Your task to perform on an android device: Open network settings Image 0: 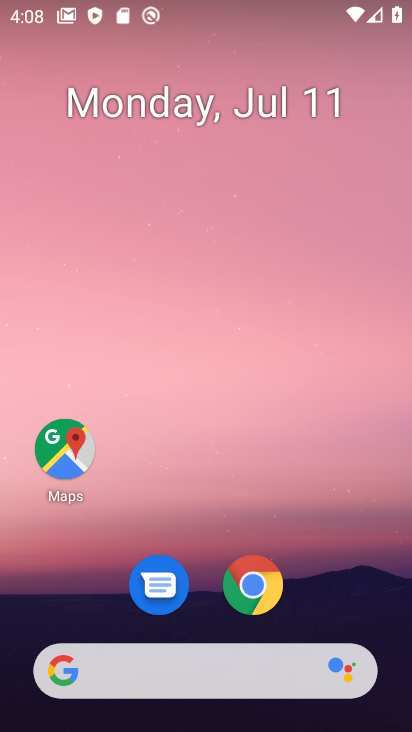
Step 0: drag from (211, 493) to (191, 0)
Your task to perform on an android device: Open network settings Image 1: 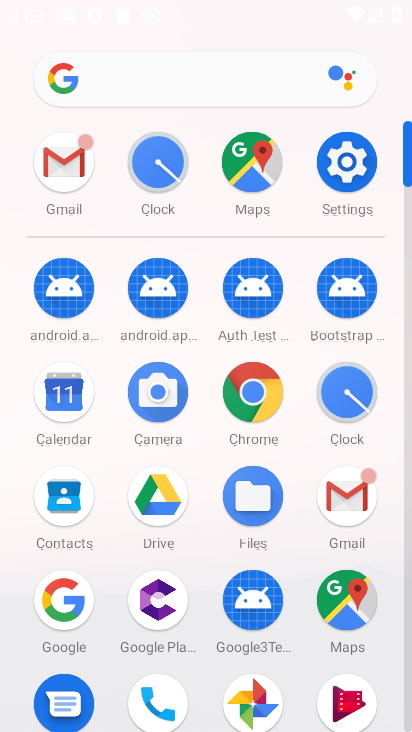
Step 1: click (350, 170)
Your task to perform on an android device: Open network settings Image 2: 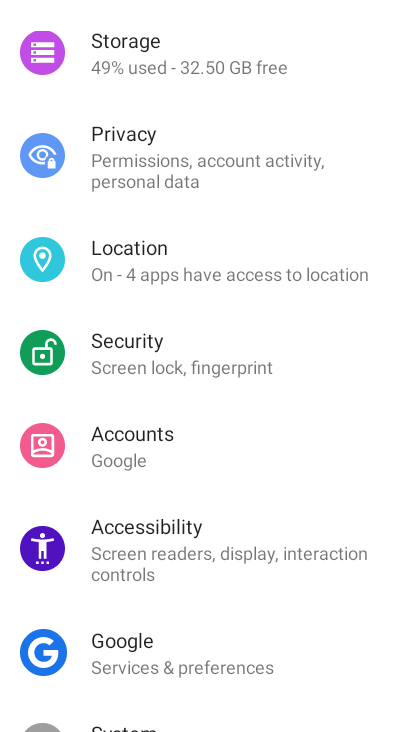
Step 2: drag from (203, 223) to (211, 564)
Your task to perform on an android device: Open network settings Image 3: 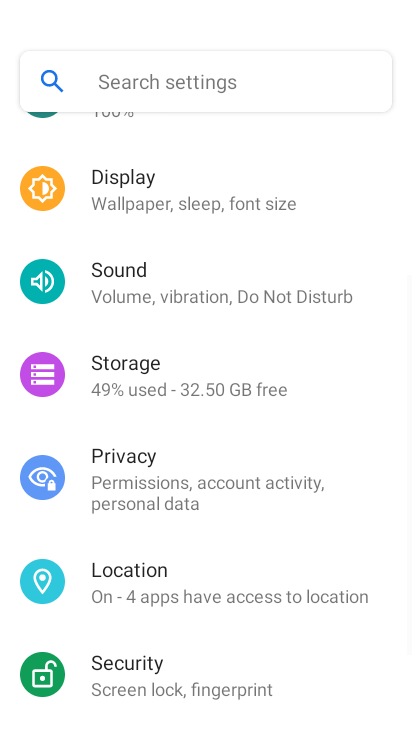
Step 3: drag from (240, 278) to (248, 528)
Your task to perform on an android device: Open network settings Image 4: 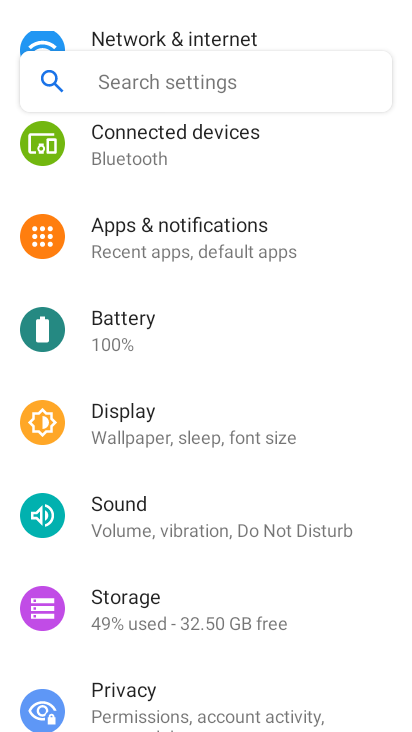
Step 4: drag from (228, 338) to (236, 543)
Your task to perform on an android device: Open network settings Image 5: 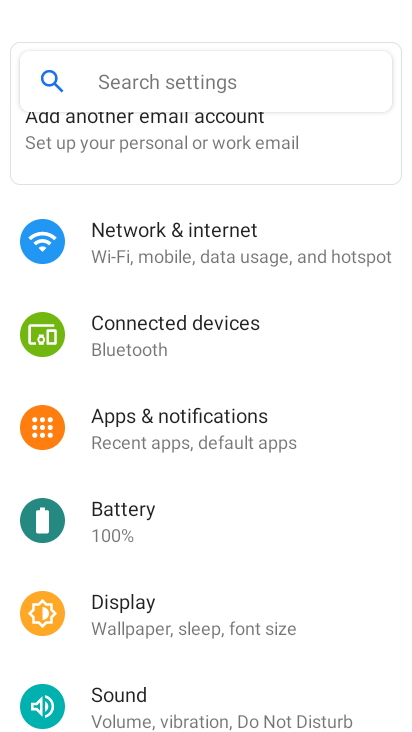
Step 5: click (237, 227)
Your task to perform on an android device: Open network settings Image 6: 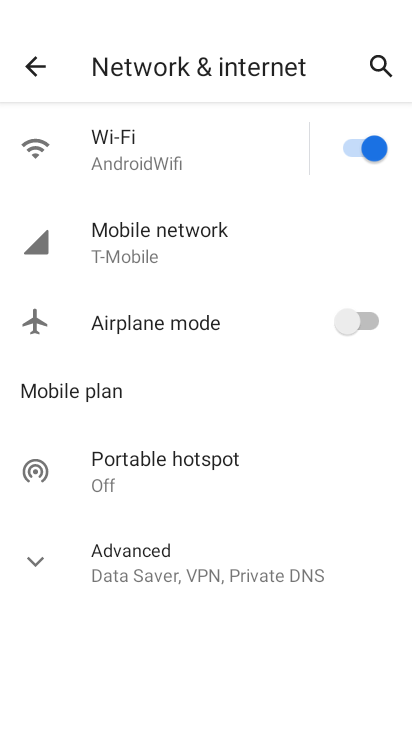
Step 6: task complete